Your task to perform on an android device: Open sound settings Image 0: 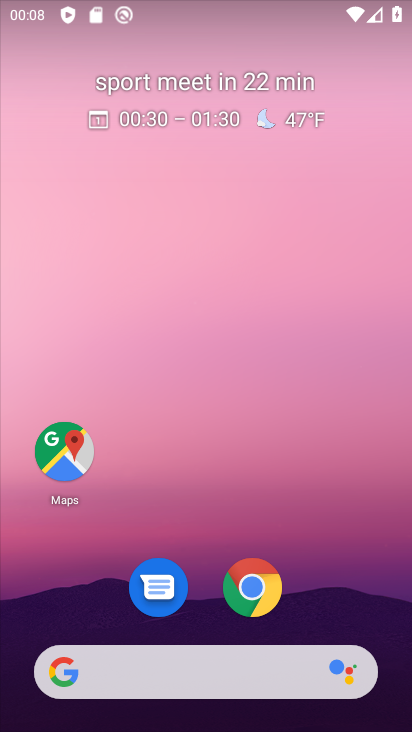
Step 0: drag from (403, 660) to (382, 167)
Your task to perform on an android device: Open sound settings Image 1: 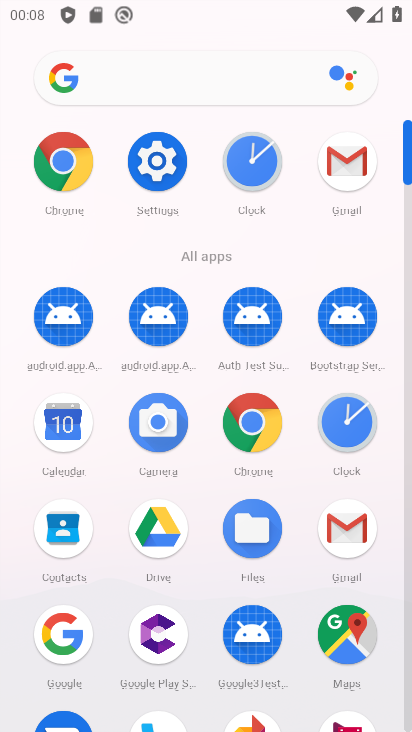
Step 1: click (143, 162)
Your task to perform on an android device: Open sound settings Image 2: 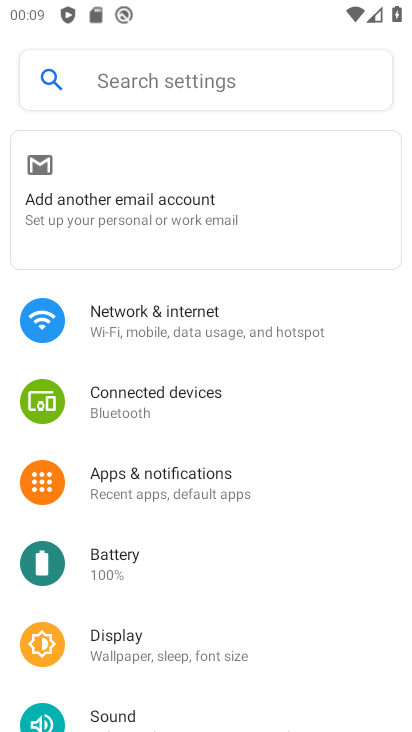
Step 2: click (121, 708)
Your task to perform on an android device: Open sound settings Image 3: 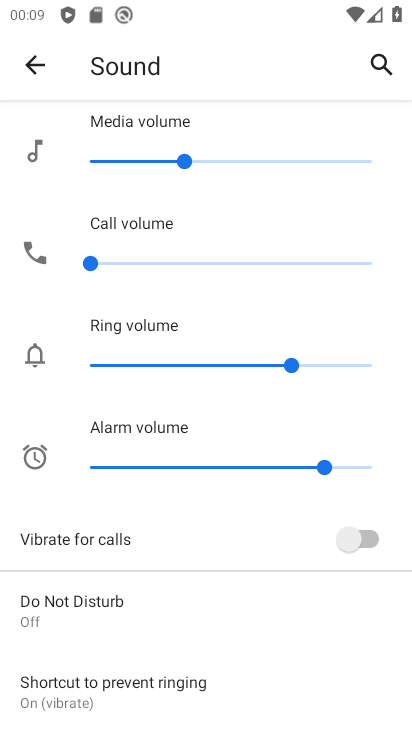
Step 3: task complete